Your task to perform on an android device: turn off sleep mode Image 0: 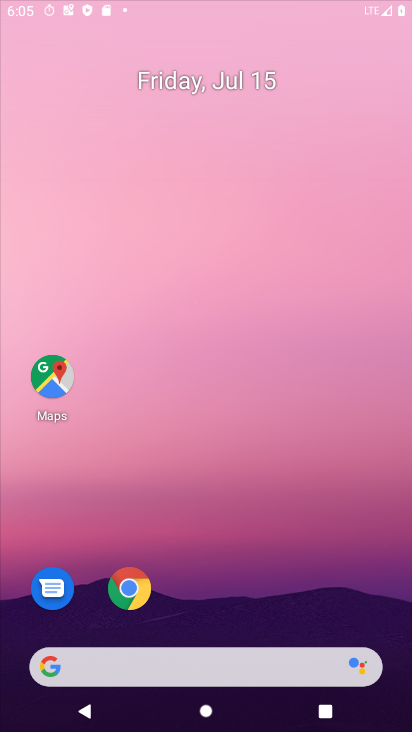
Step 0: drag from (284, 624) to (296, 23)
Your task to perform on an android device: turn off sleep mode Image 1: 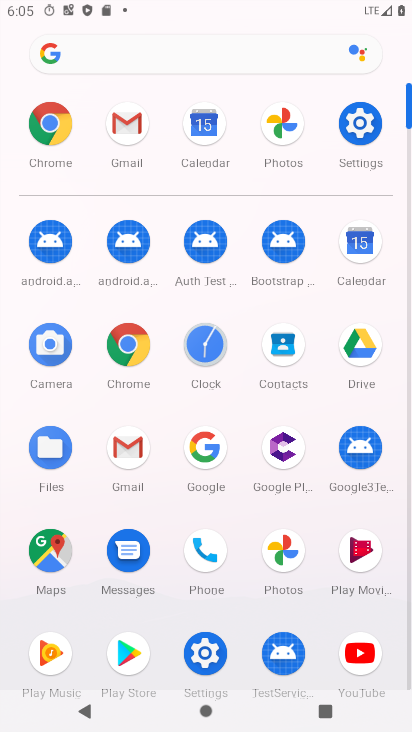
Step 1: click (353, 144)
Your task to perform on an android device: turn off sleep mode Image 2: 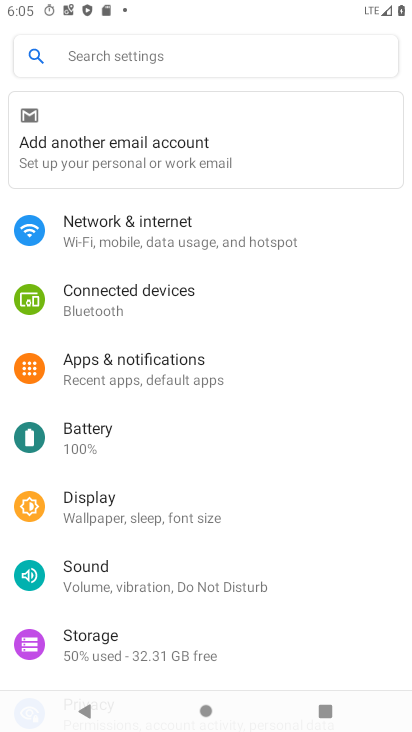
Step 2: click (133, 507)
Your task to perform on an android device: turn off sleep mode Image 3: 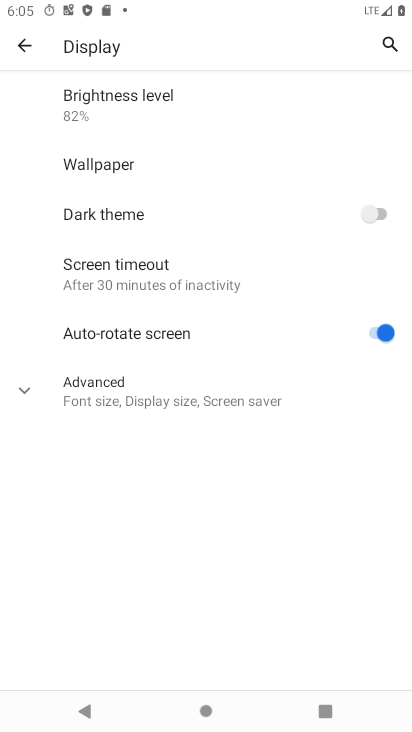
Step 3: press back button
Your task to perform on an android device: turn off sleep mode Image 4: 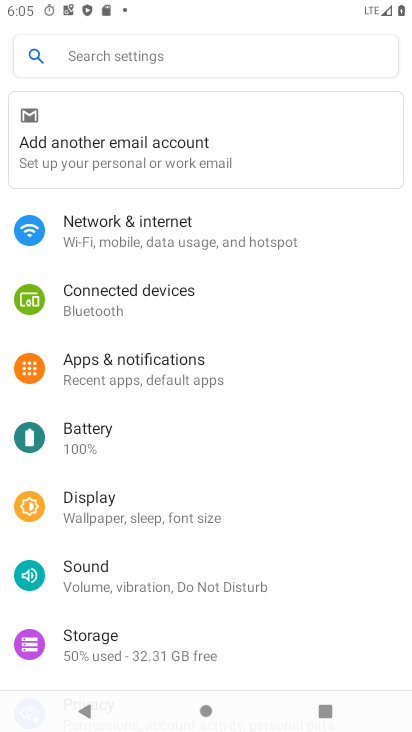
Step 4: click (114, 520)
Your task to perform on an android device: turn off sleep mode Image 5: 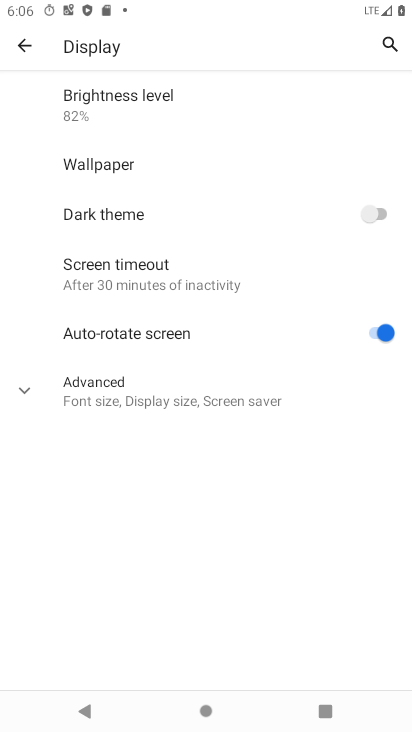
Step 5: press back button
Your task to perform on an android device: turn off sleep mode Image 6: 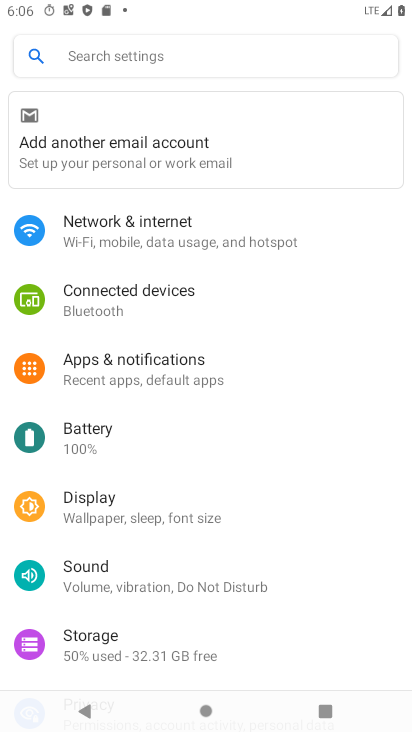
Step 6: click (130, 515)
Your task to perform on an android device: turn off sleep mode Image 7: 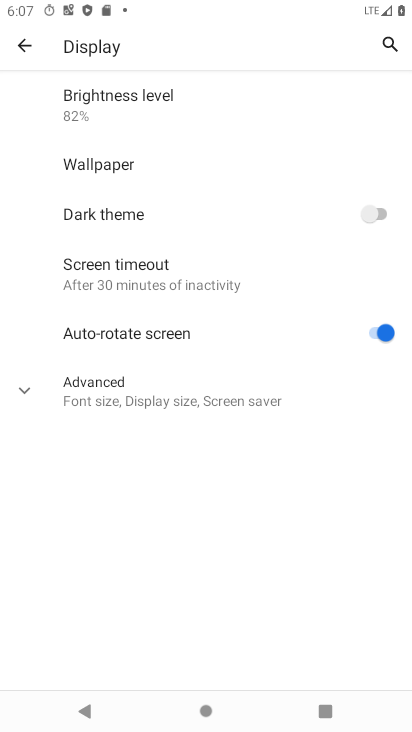
Step 7: task complete